Your task to perform on an android device: toggle pop-ups in chrome Image 0: 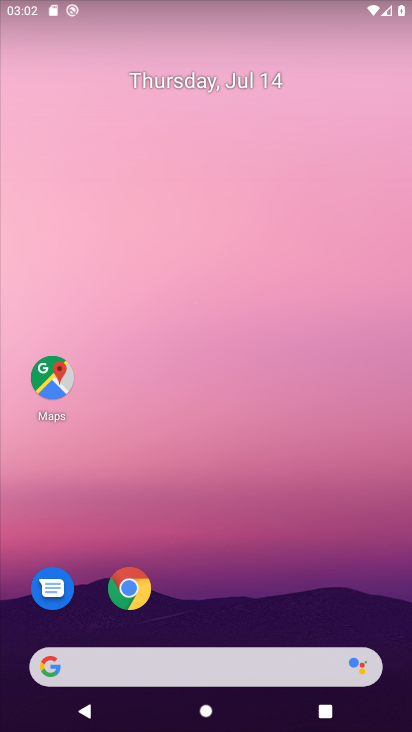
Step 0: click (138, 597)
Your task to perform on an android device: toggle pop-ups in chrome Image 1: 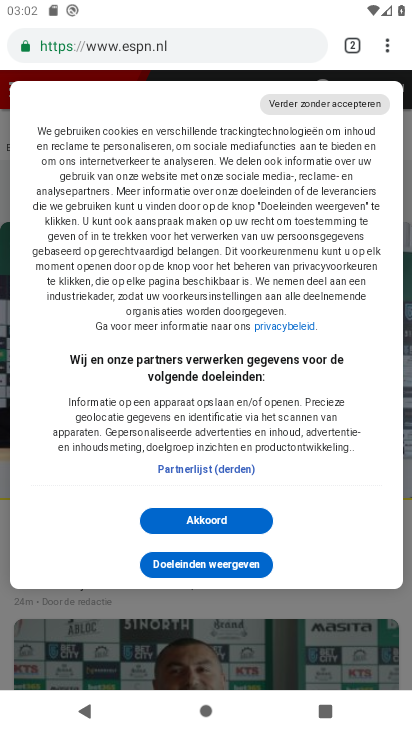
Step 1: click (388, 46)
Your task to perform on an android device: toggle pop-ups in chrome Image 2: 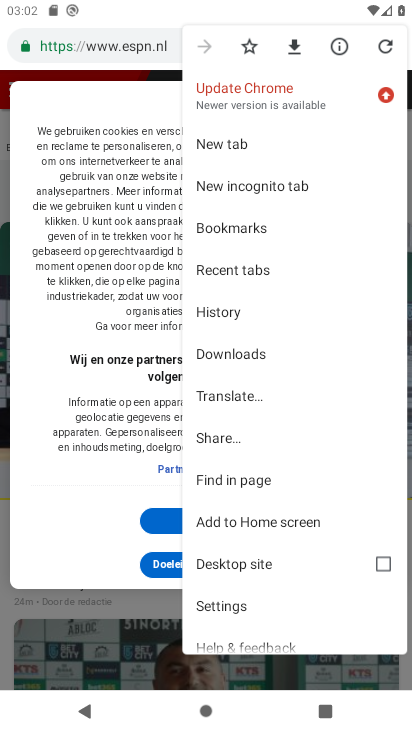
Step 2: click (255, 599)
Your task to perform on an android device: toggle pop-ups in chrome Image 3: 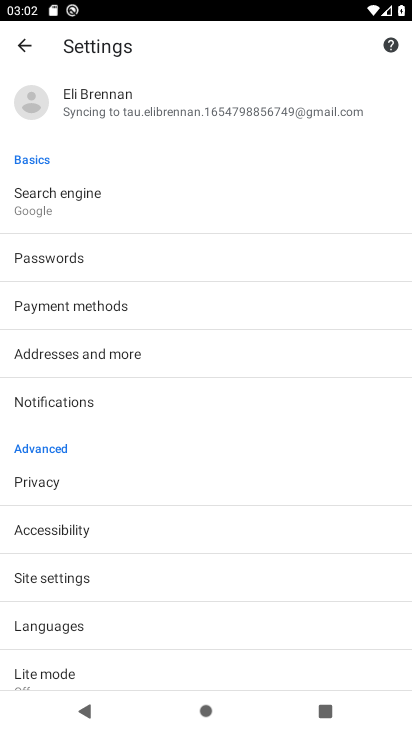
Step 3: click (138, 582)
Your task to perform on an android device: toggle pop-ups in chrome Image 4: 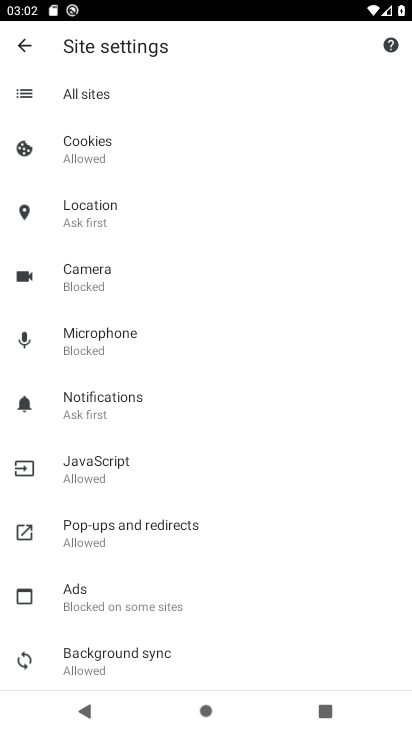
Step 4: click (149, 543)
Your task to perform on an android device: toggle pop-ups in chrome Image 5: 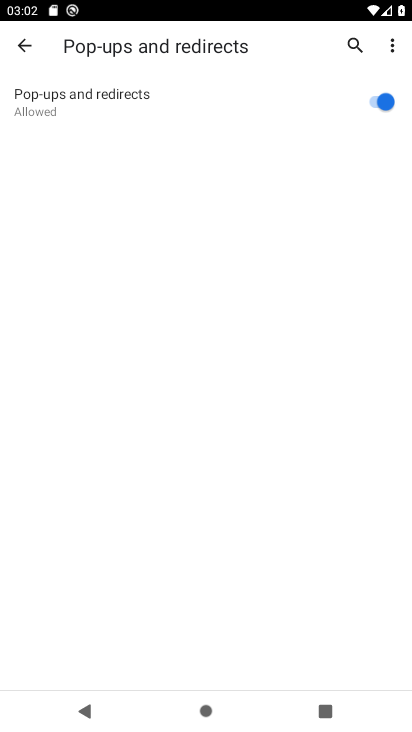
Step 5: click (377, 110)
Your task to perform on an android device: toggle pop-ups in chrome Image 6: 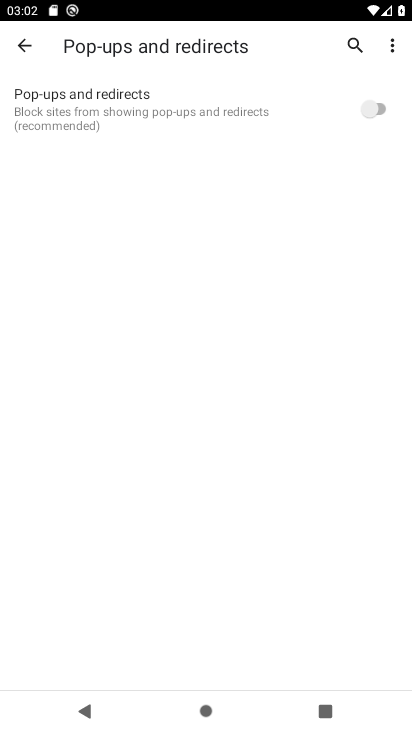
Step 6: task complete